Your task to perform on an android device: open app "Move to iOS" (install if not already installed) Image 0: 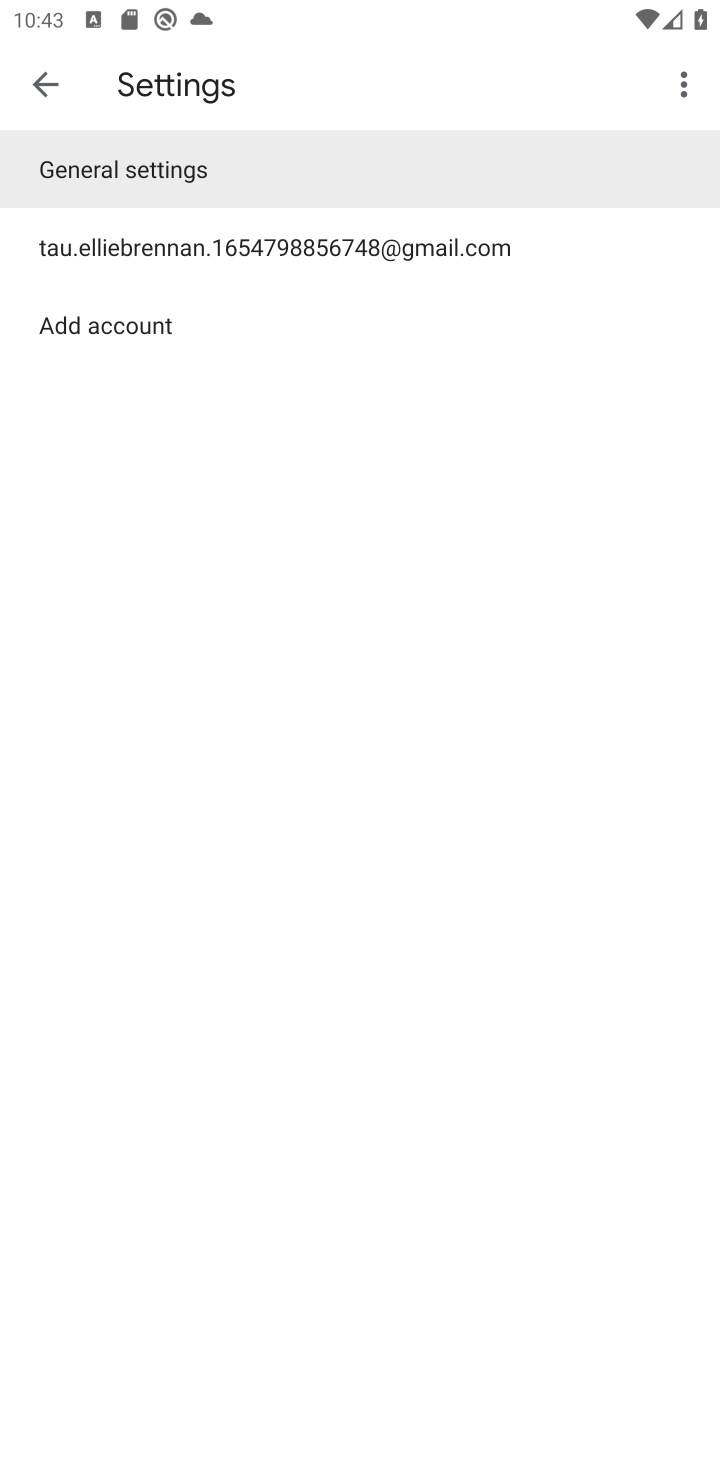
Step 0: press home button
Your task to perform on an android device: open app "Move to iOS" (install if not already installed) Image 1: 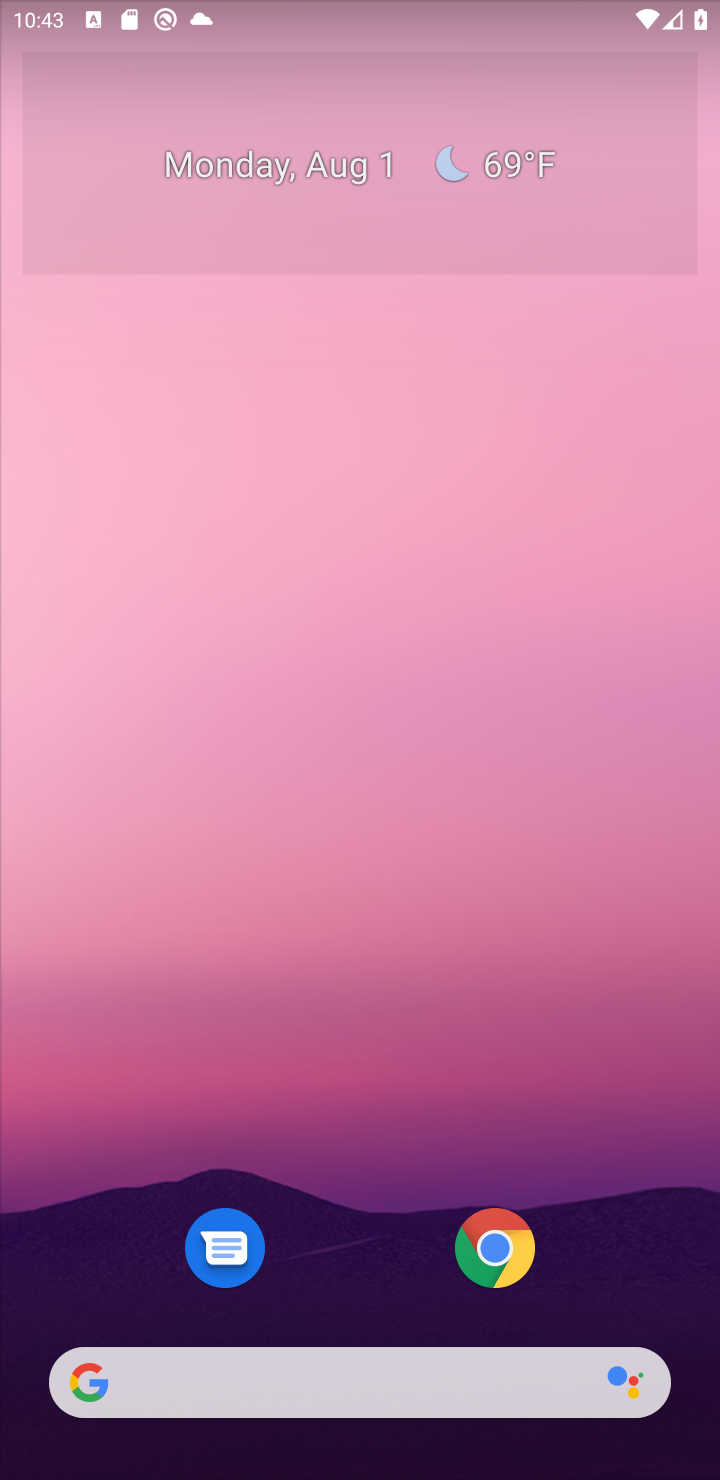
Step 1: drag from (370, 1175) to (472, 112)
Your task to perform on an android device: open app "Move to iOS" (install if not already installed) Image 2: 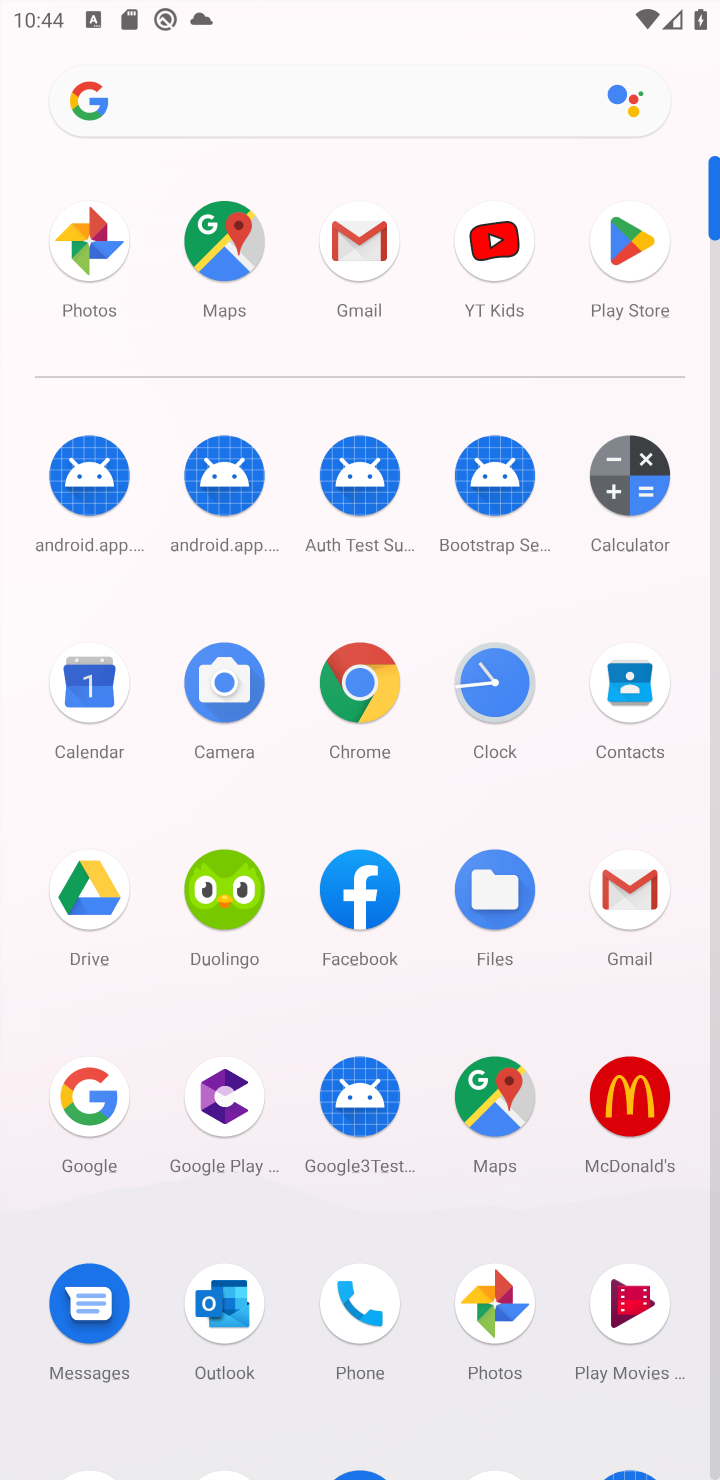
Step 2: click (633, 242)
Your task to perform on an android device: open app "Move to iOS" (install if not already installed) Image 3: 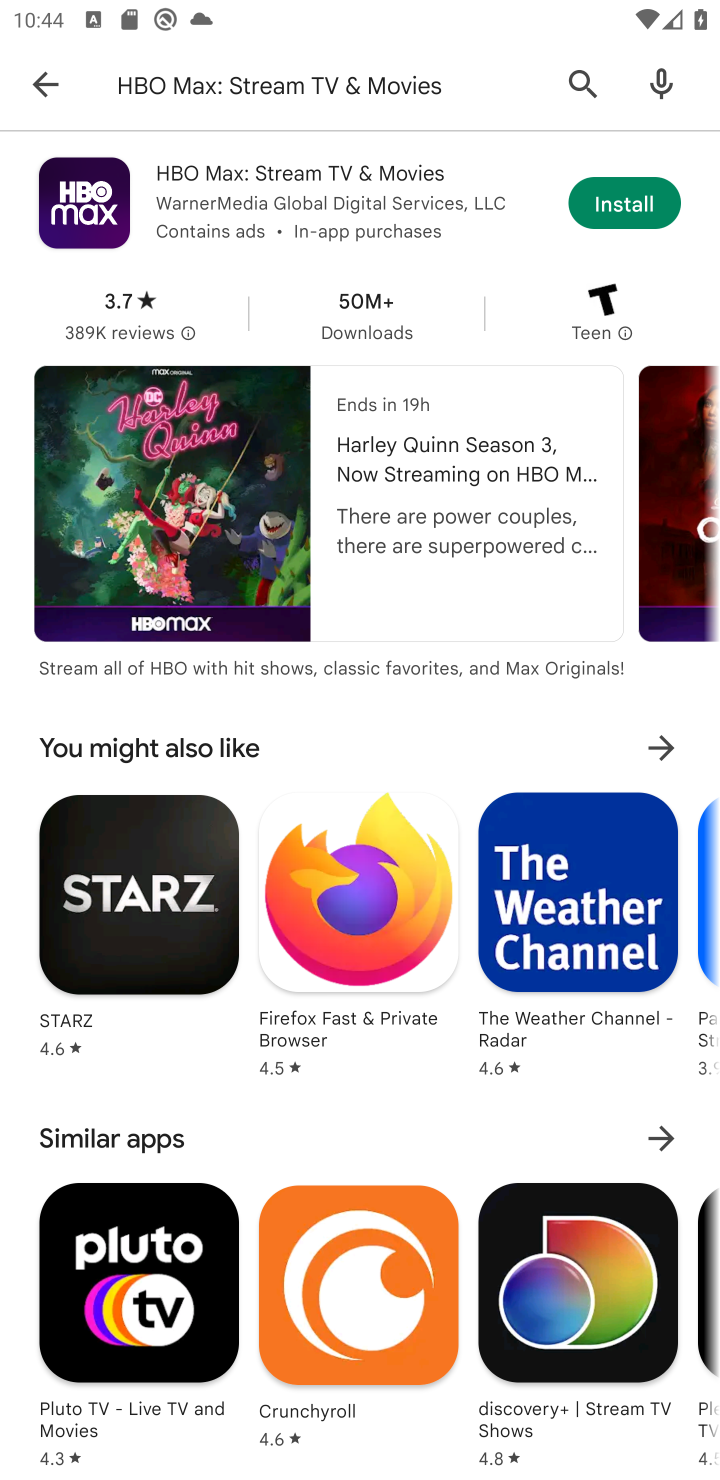
Step 3: click (365, 62)
Your task to perform on an android device: open app "Move to iOS" (install if not already installed) Image 4: 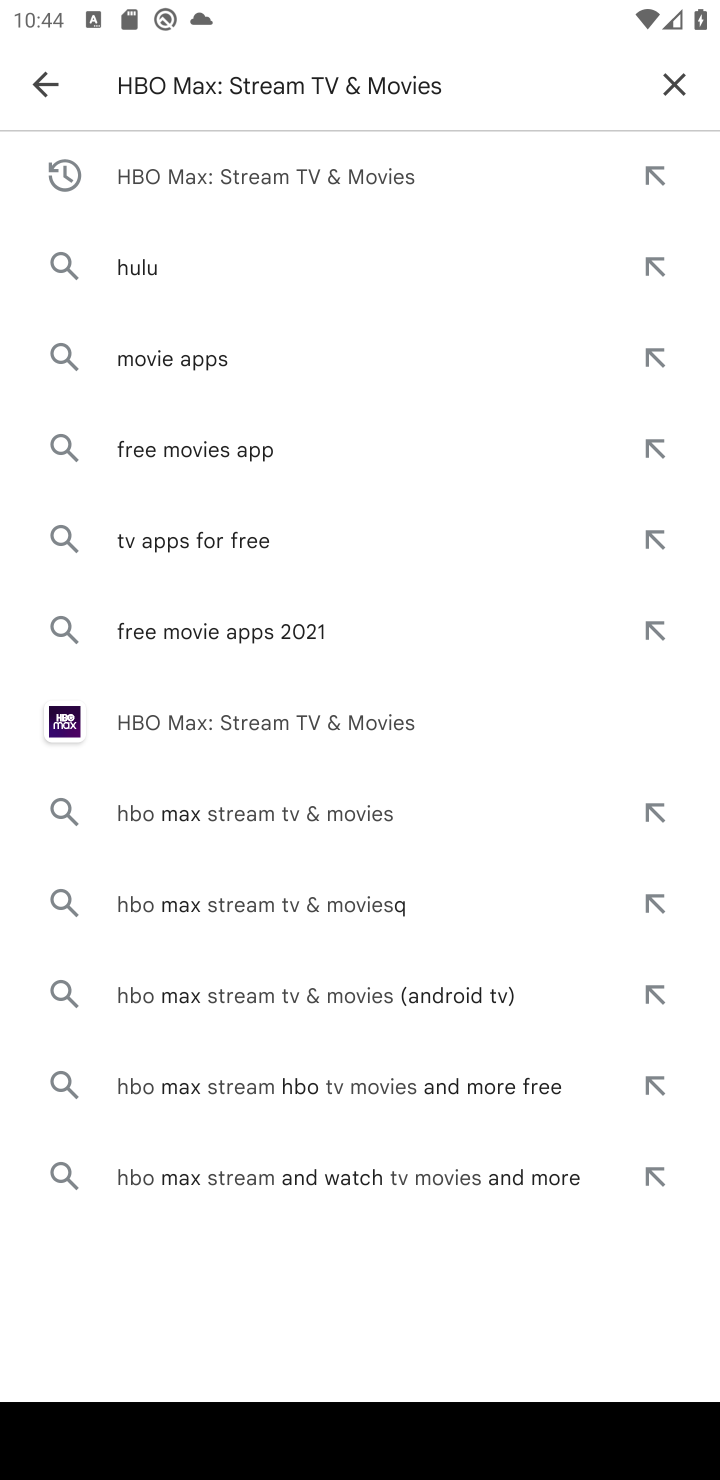
Step 4: click (678, 82)
Your task to perform on an android device: open app "Move to iOS" (install if not already installed) Image 5: 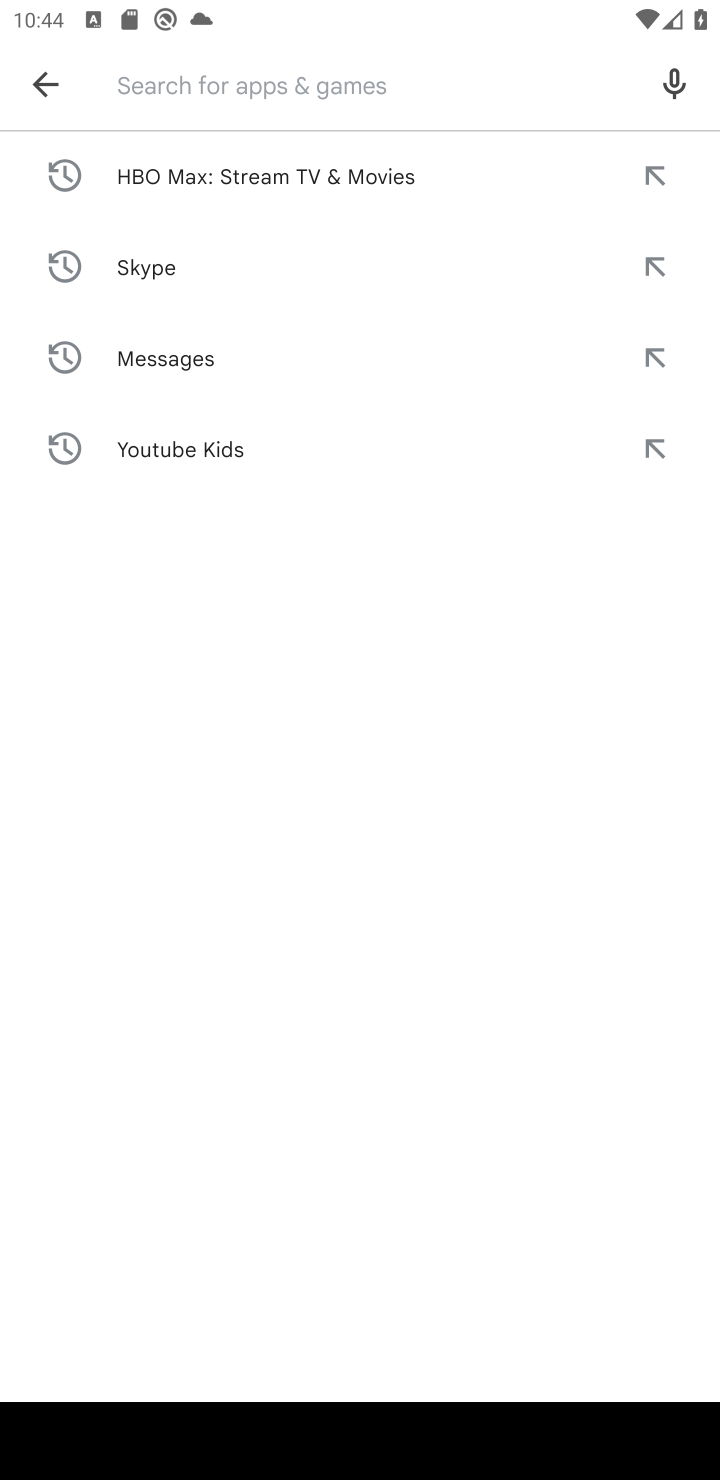
Step 5: type "Move to iOS"
Your task to perform on an android device: open app "Move to iOS" (install if not already installed) Image 6: 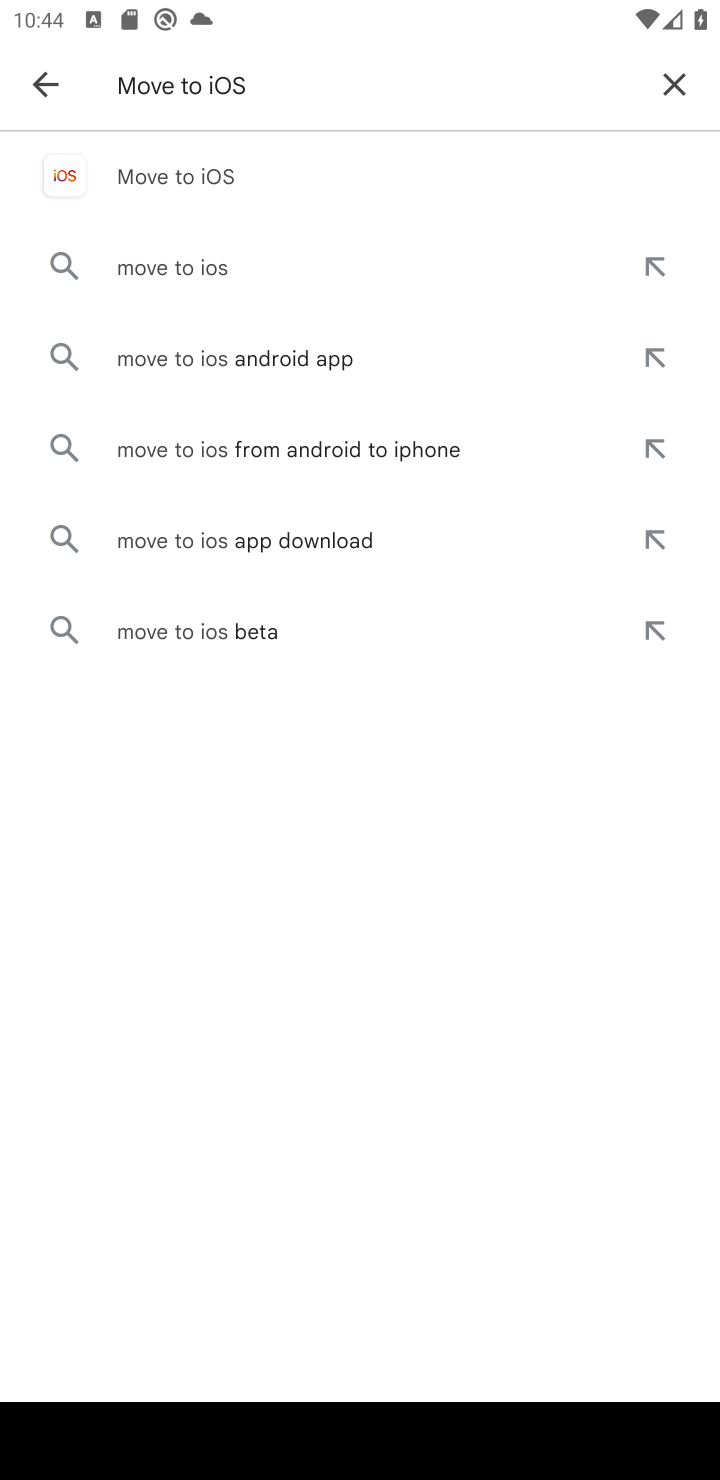
Step 6: press enter
Your task to perform on an android device: open app "Move to iOS" (install if not already installed) Image 7: 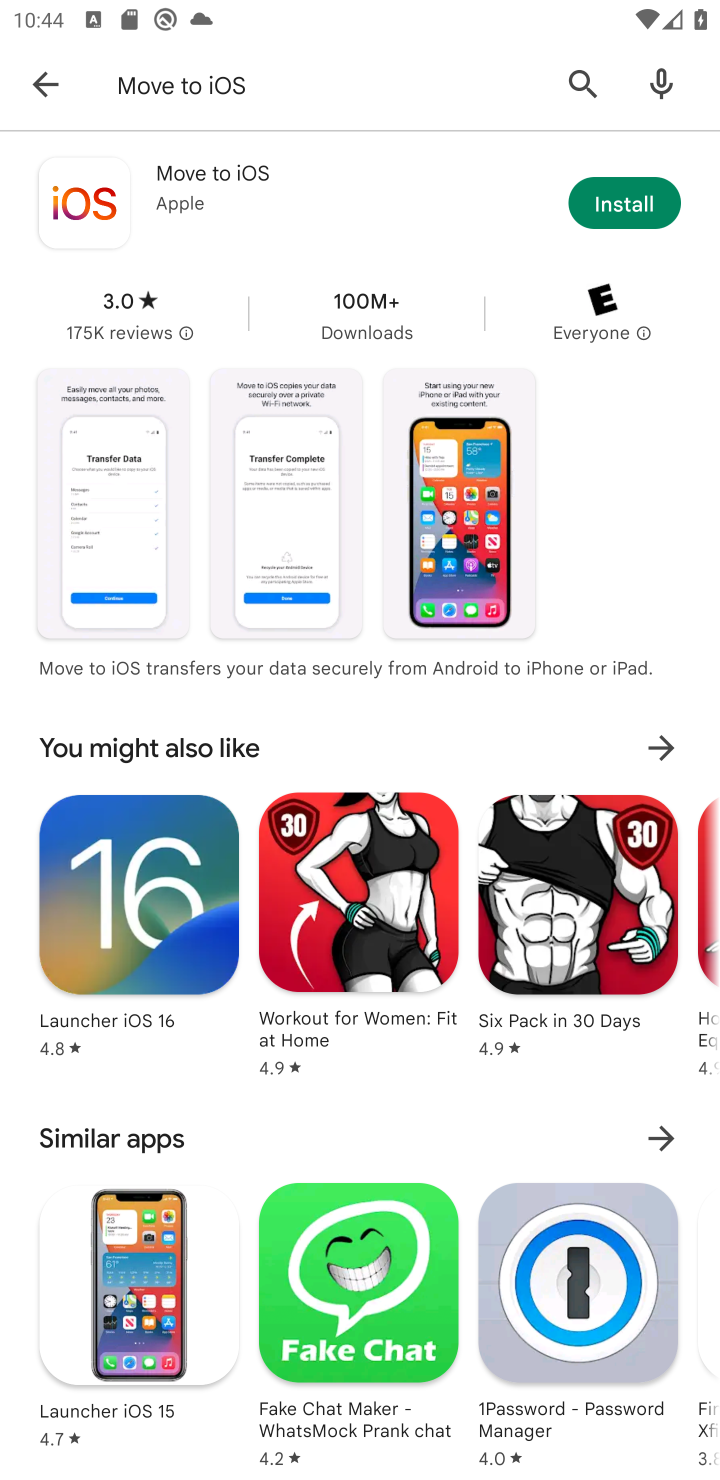
Step 7: click (624, 207)
Your task to perform on an android device: open app "Move to iOS" (install if not already installed) Image 8: 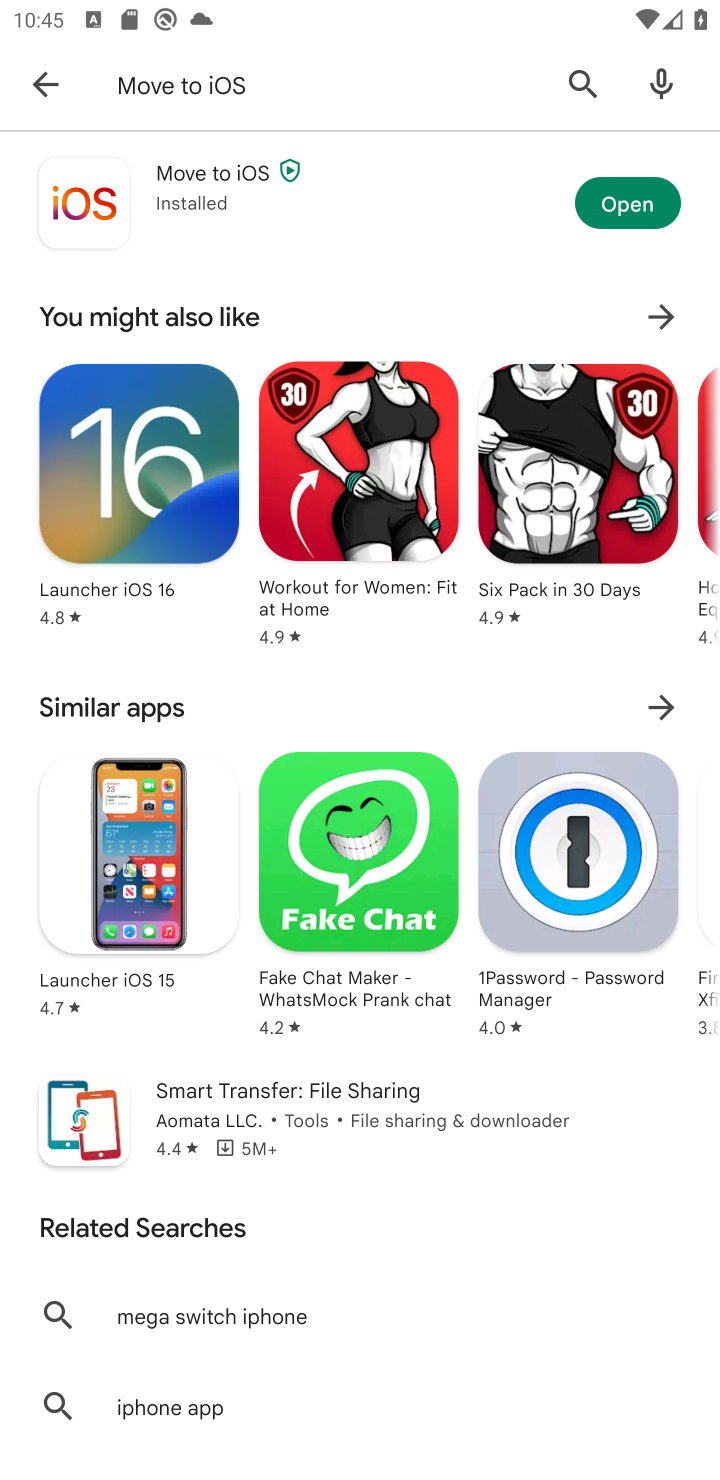
Step 8: click (610, 180)
Your task to perform on an android device: open app "Move to iOS" (install if not already installed) Image 9: 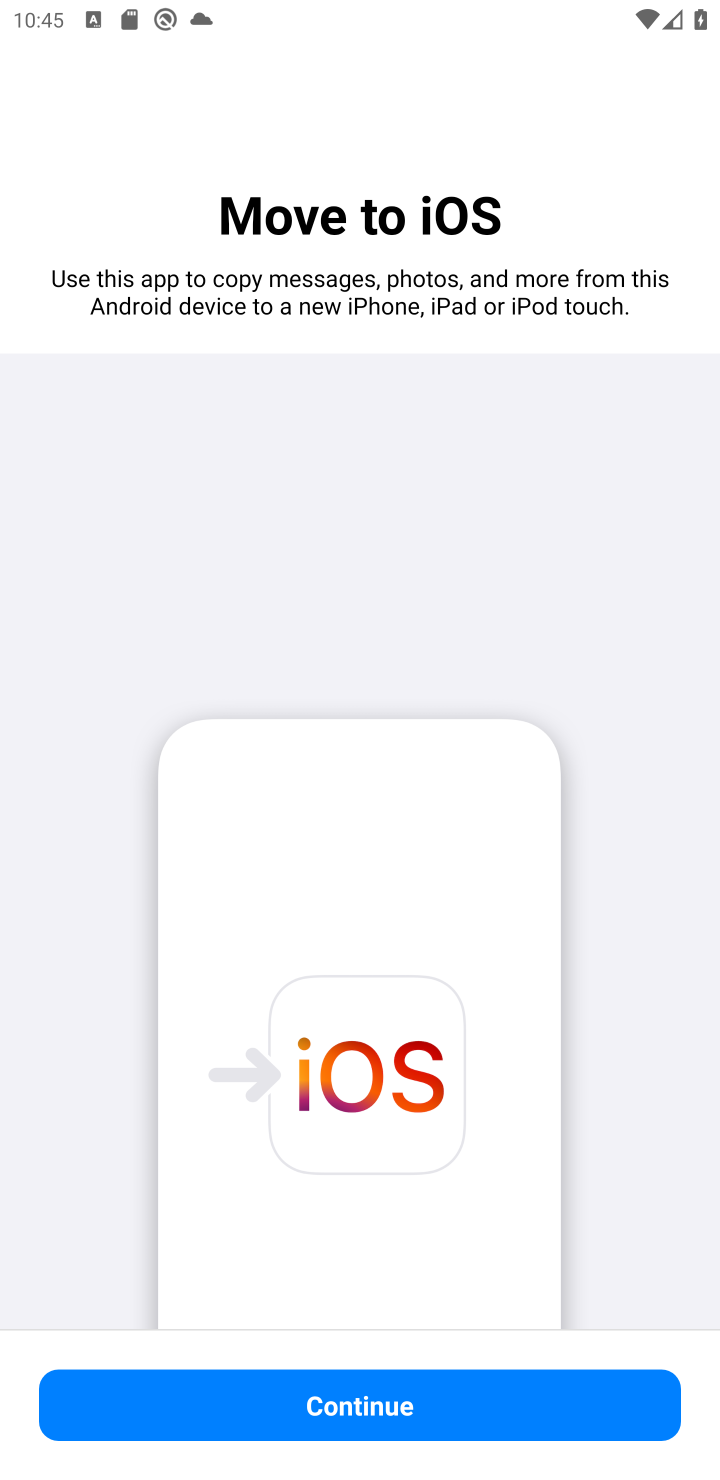
Step 9: task complete